Your task to perform on an android device: change notifications settings Image 0: 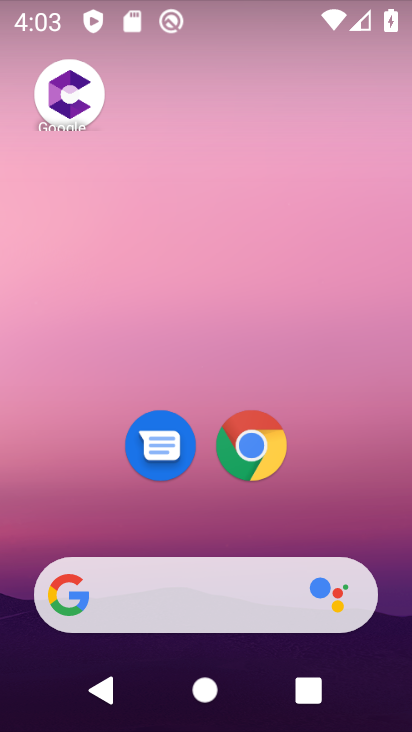
Step 0: drag from (215, 528) to (254, 49)
Your task to perform on an android device: change notifications settings Image 1: 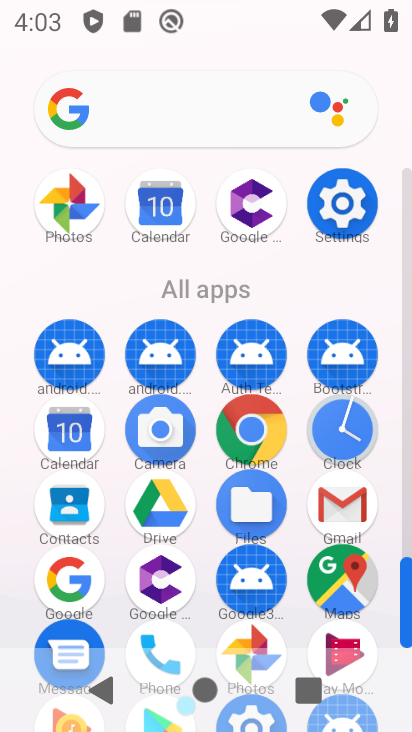
Step 1: click (354, 223)
Your task to perform on an android device: change notifications settings Image 2: 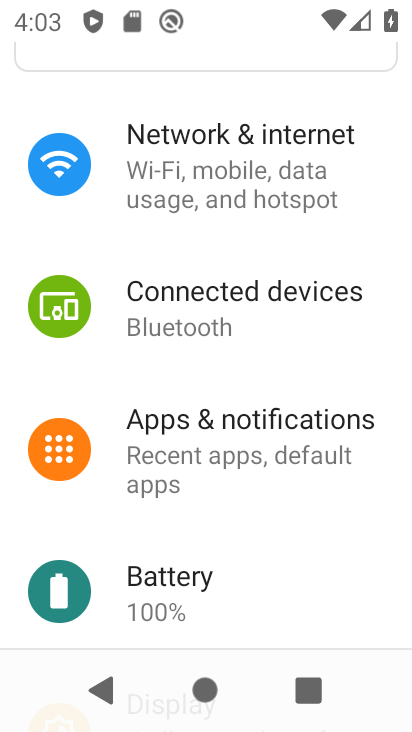
Step 2: click (210, 452)
Your task to perform on an android device: change notifications settings Image 3: 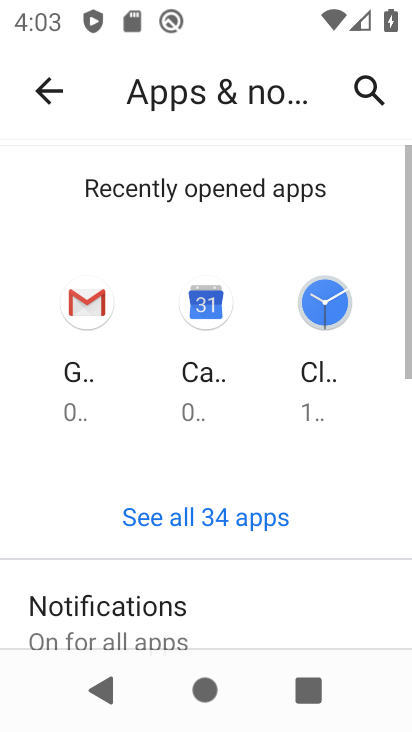
Step 3: click (133, 590)
Your task to perform on an android device: change notifications settings Image 4: 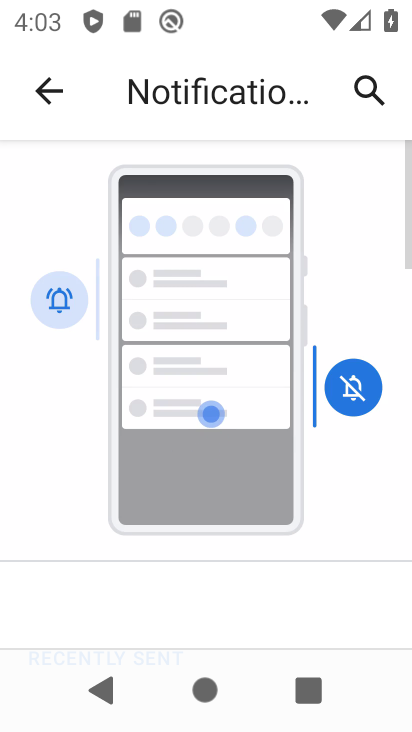
Step 4: drag from (221, 455) to (325, 5)
Your task to perform on an android device: change notifications settings Image 5: 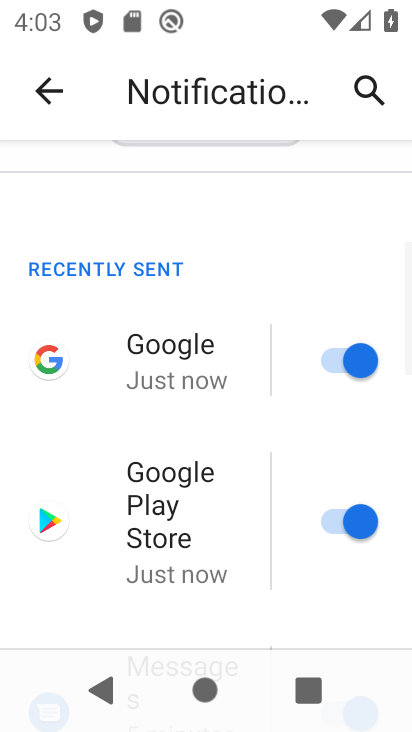
Step 5: click (340, 366)
Your task to perform on an android device: change notifications settings Image 6: 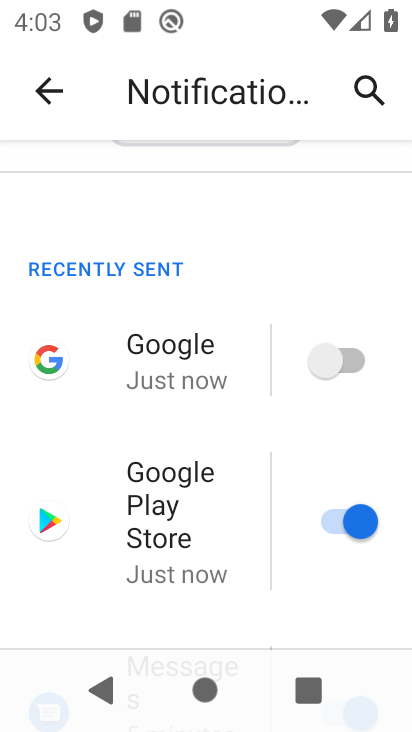
Step 6: click (320, 525)
Your task to perform on an android device: change notifications settings Image 7: 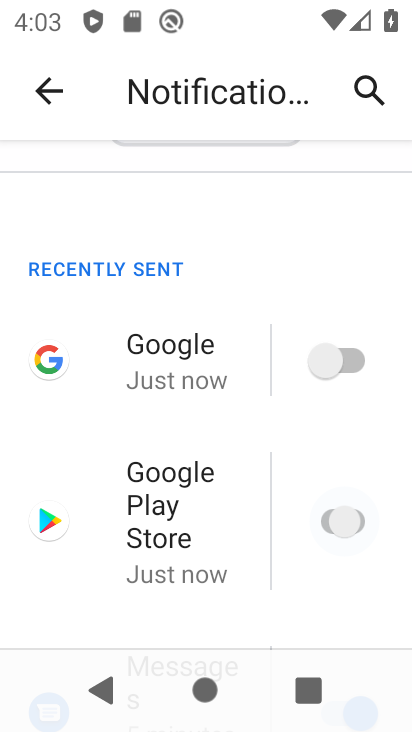
Step 7: drag from (213, 538) to (333, 38)
Your task to perform on an android device: change notifications settings Image 8: 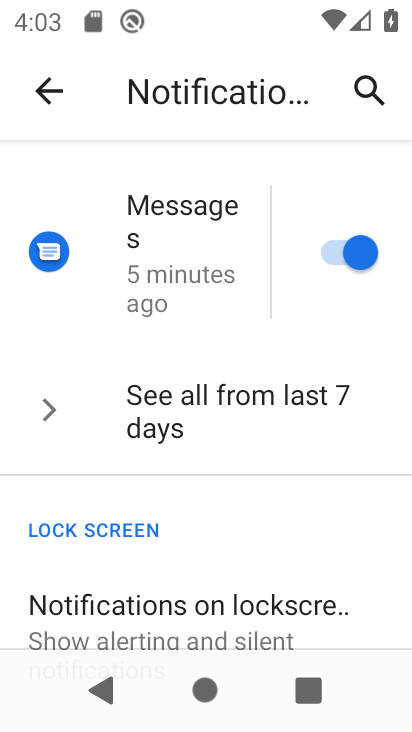
Step 8: click (329, 256)
Your task to perform on an android device: change notifications settings Image 9: 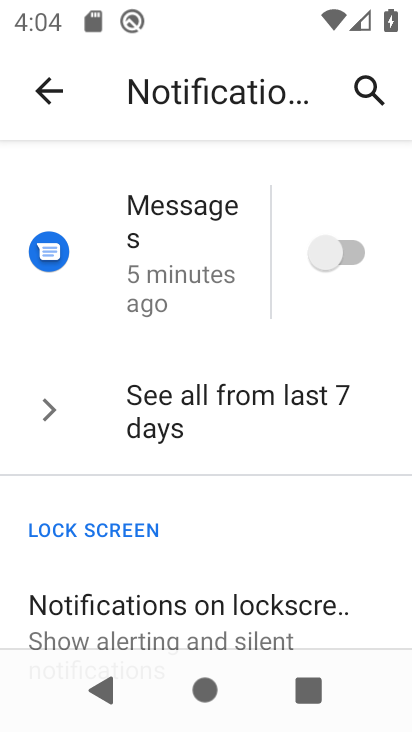
Step 9: task complete